Your task to perform on an android device: turn off priority inbox in the gmail app Image 0: 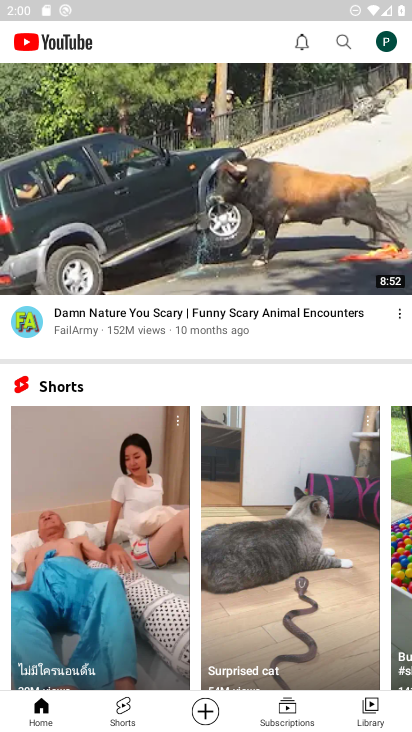
Step 0: press home button
Your task to perform on an android device: turn off priority inbox in the gmail app Image 1: 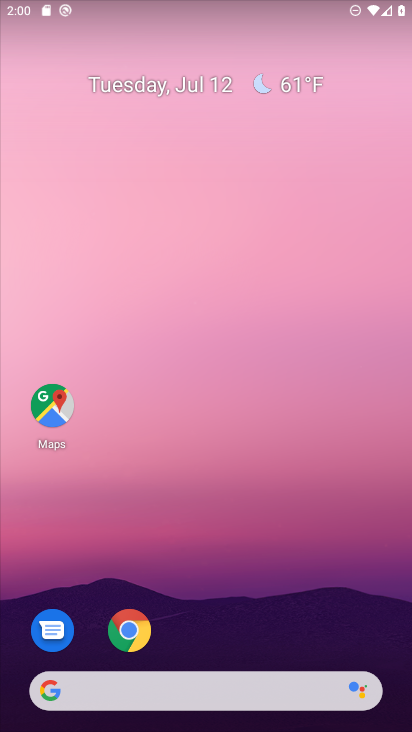
Step 1: drag from (226, 619) to (192, 149)
Your task to perform on an android device: turn off priority inbox in the gmail app Image 2: 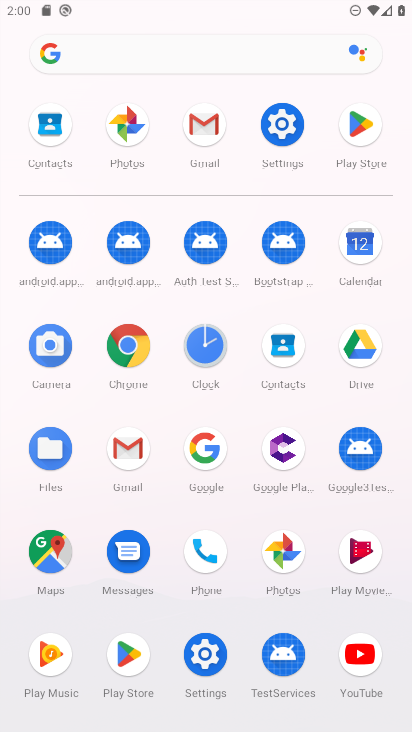
Step 2: click (196, 106)
Your task to perform on an android device: turn off priority inbox in the gmail app Image 3: 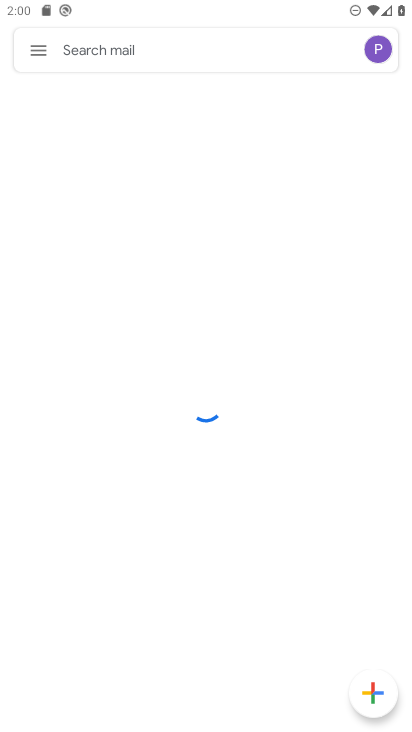
Step 3: click (30, 45)
Your task to perform on an android device: turn off priority inbox in the gmail app Image 4: 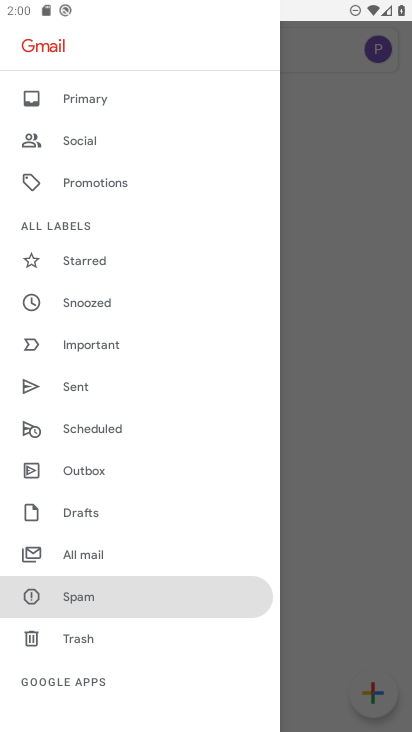
Step 4: drag from (124, 663) to (159, 292)
Your task to perform on an android device: turn off priority inbox in the gmail app Image 5: 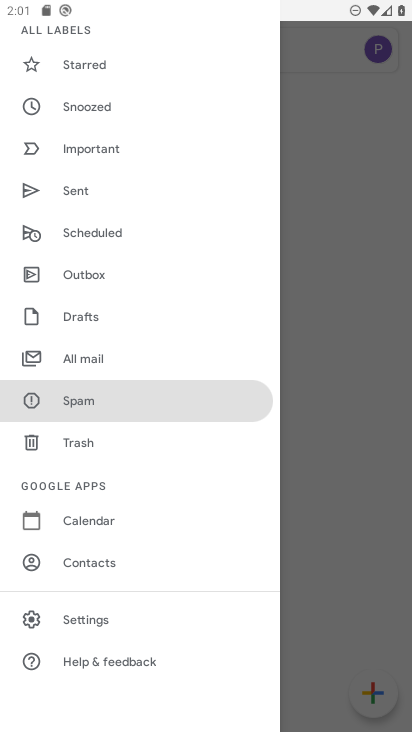
Step 5: click (114, 615)
Your task to perform on an android device: turn off priority inbox in the gmail app Image 6: 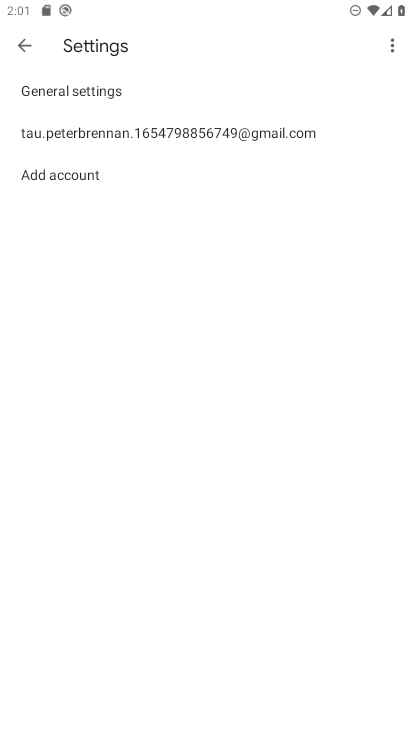
Step 6: click (224, 132)
Your task to perform on an android device: turn off priority inbox in the gmail app Image 7: 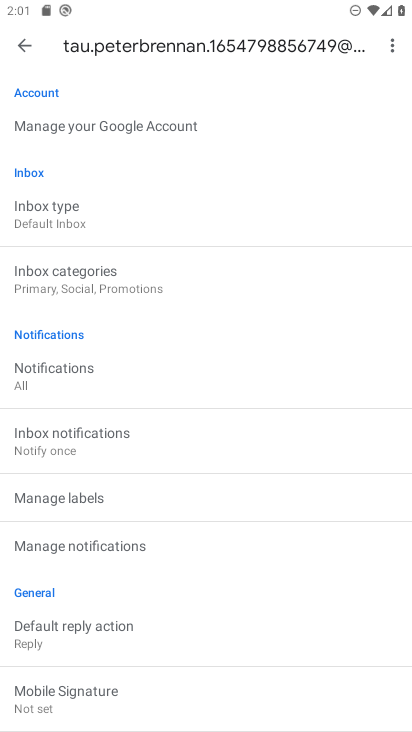
Step 7: drag from (173, 555) to (206, 384)
Your task to perform on an android device: turn off priority inbox in the gmail app Image 8: 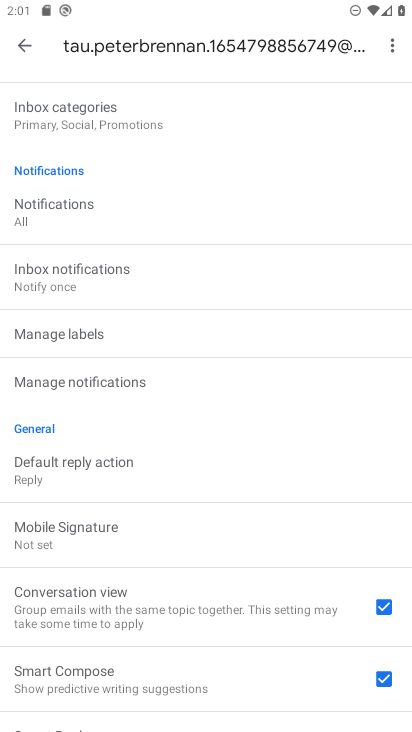
Step 8: drag from (116, 166) to (116, 359)
Your task to perform on an android device: turn off priority inbox in the gmail app Image 9: 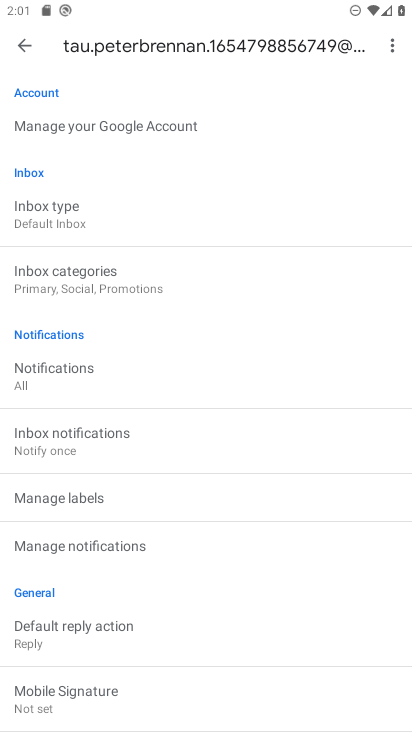
Step 9: click (102, 228)
Your task to perform on an android device: turn off priority inbox in the gmail app Image 10: 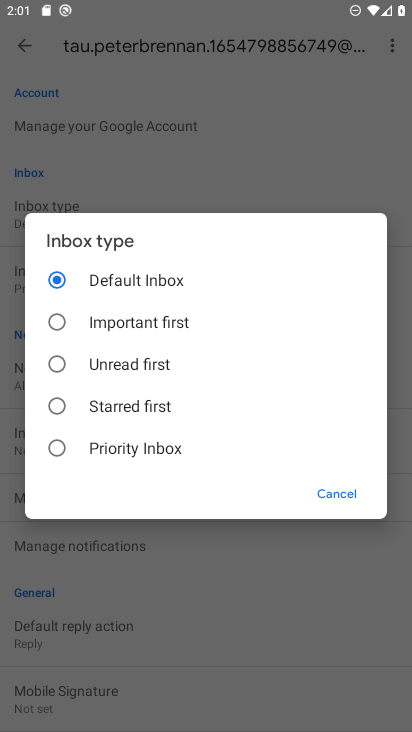
Step 10: task complete